Your task to perform on an android device: check storage Image 0: 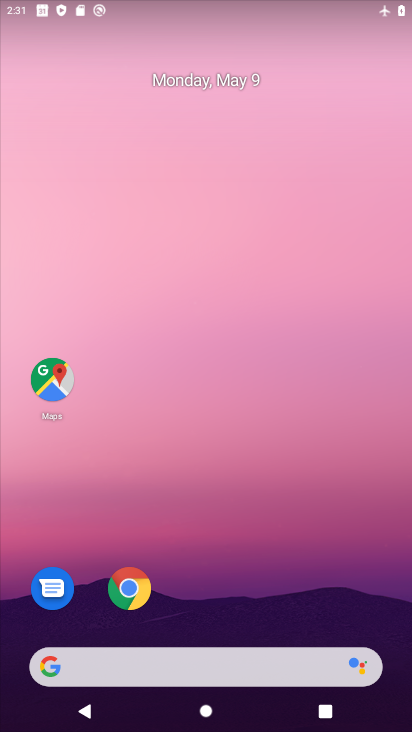
Step 0: drag from (326, 613) to (292, 130)
Your task to perform on an android device: check storage Image 1: 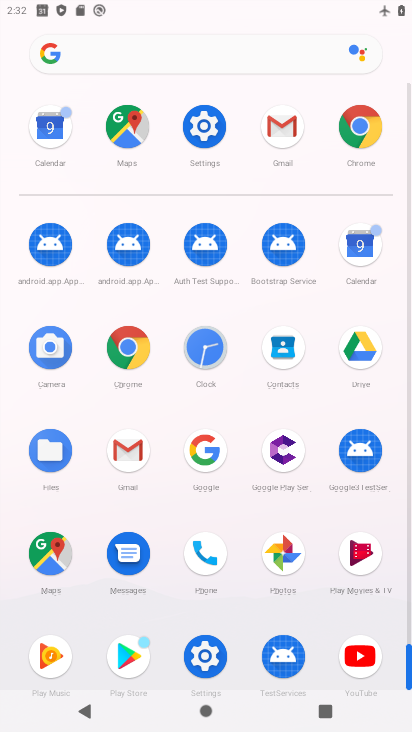
Step 1: click (205, 645)
Your task to perform on an android device: check storage Image 2: 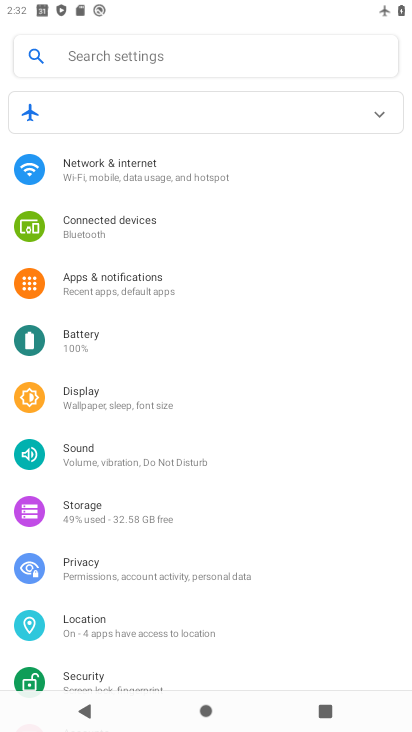
Step 2: click (179, 525)
Your task to perform on an android device: check storage Image 3: 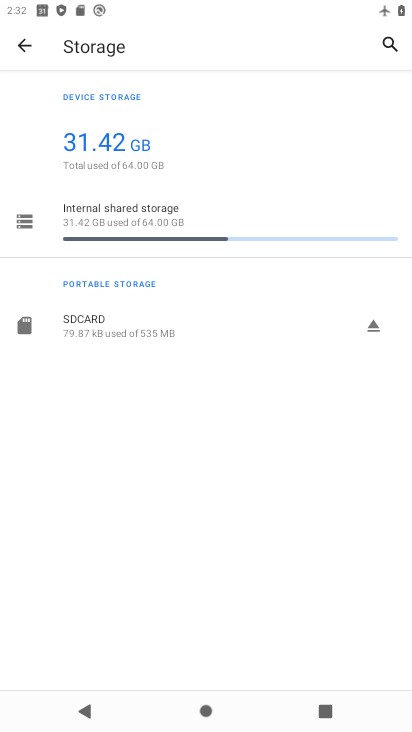
Step 3: click (113, 230)
Your task to perform on an android device: check storage Image 4: 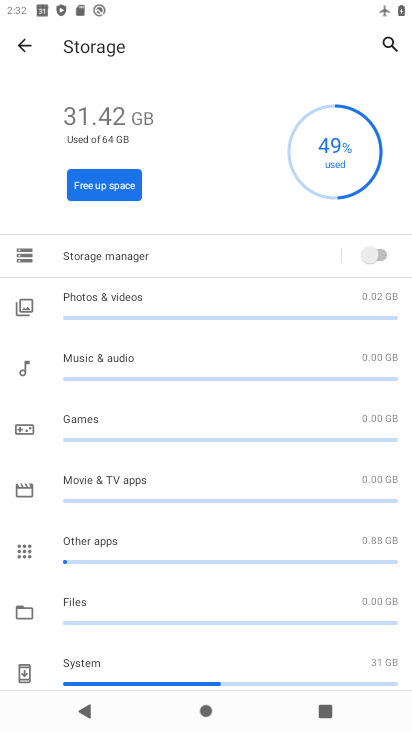
Step 4: task complete